Your task to perform on an android device: change the clock style Image 0: 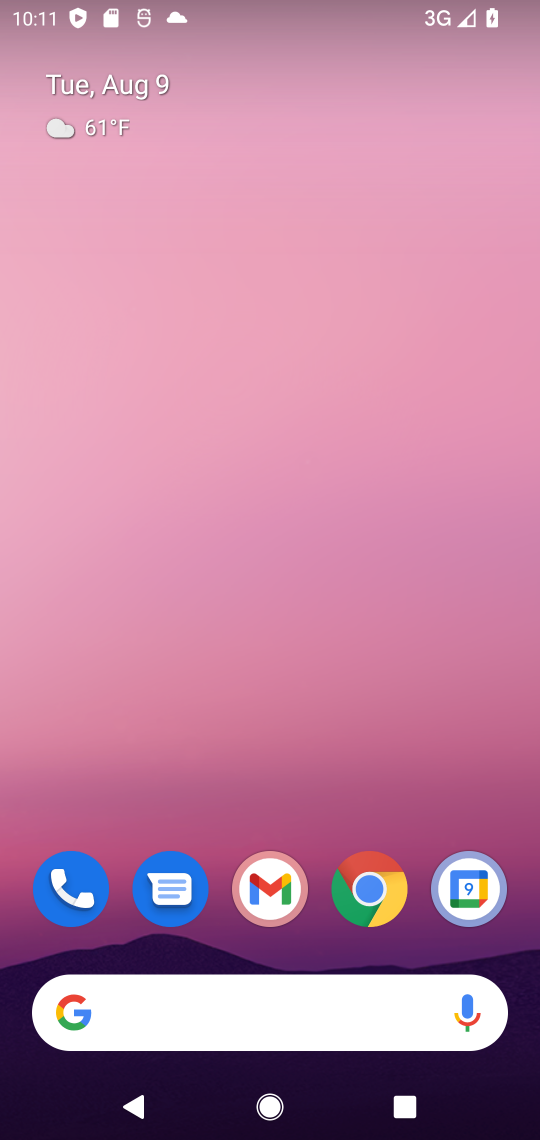
Step 0: drag from (150, 1026) to (312, 149)
Your task to perform on an android device: change the clock style Image 1: 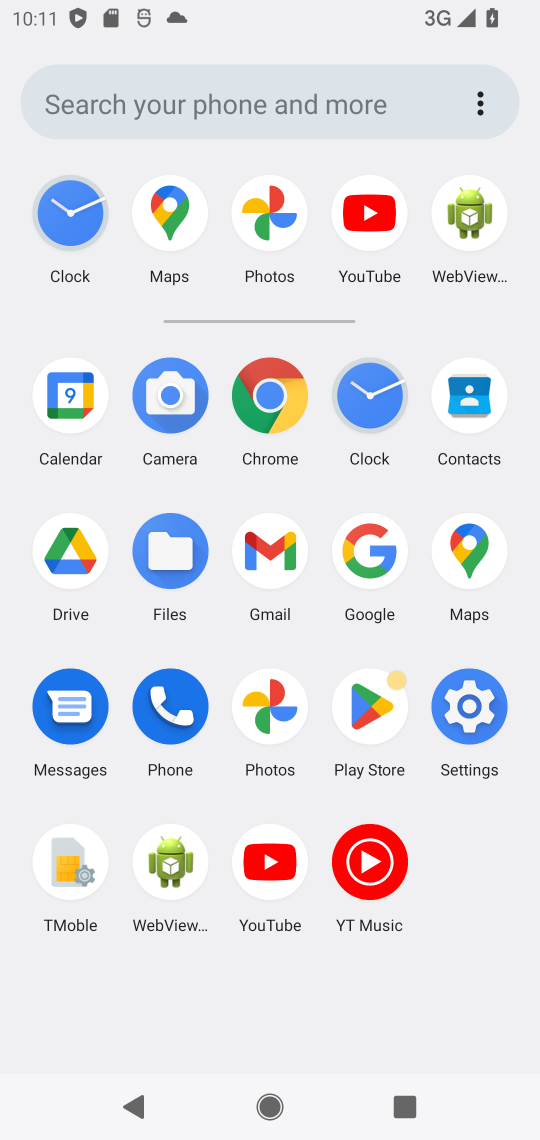
Step 1: click (357, 399)
Your task to perform on an android device: change the clock style Image 2: 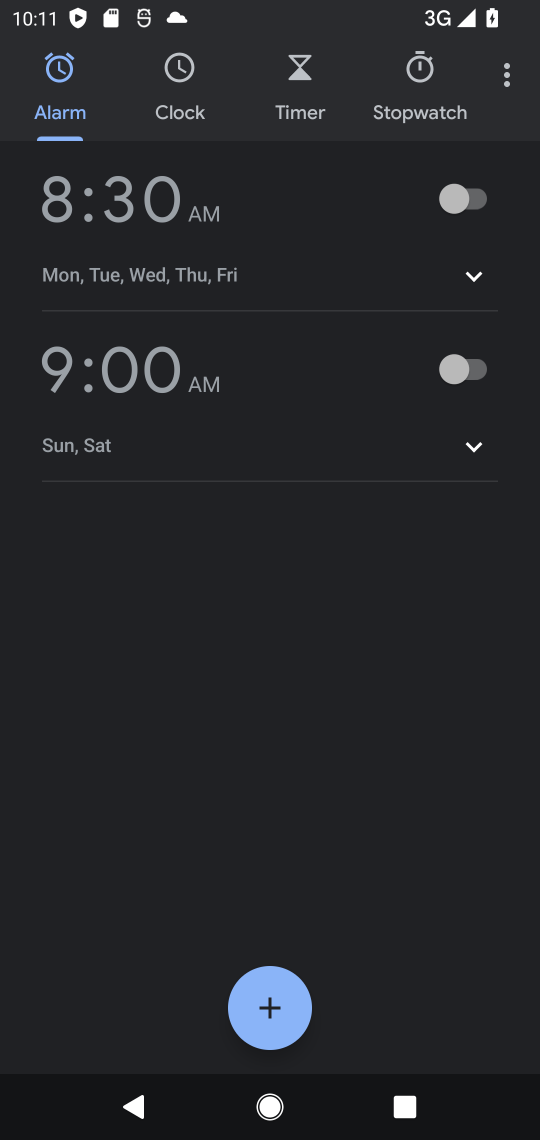
Step 2: click (502, 71)
Your task to perform on an android device: change the clock style Image 3: 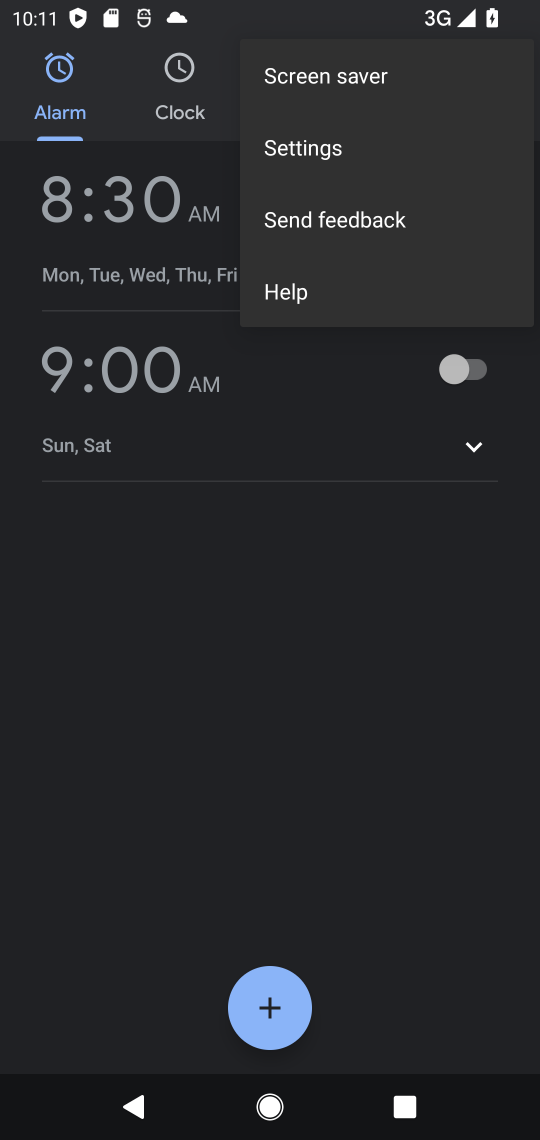
Step 3: click (300, 151)
Your task to perform on an android device: change the clock style Image 4: 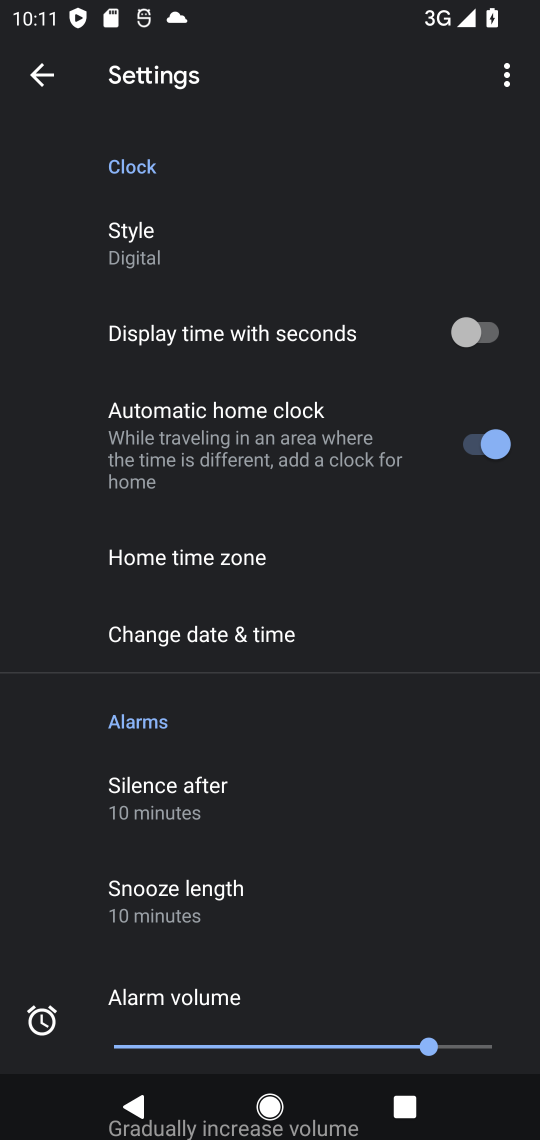
Step 4: click (153, 262)
Your task to perform on an android device: change the clock style Image 5: 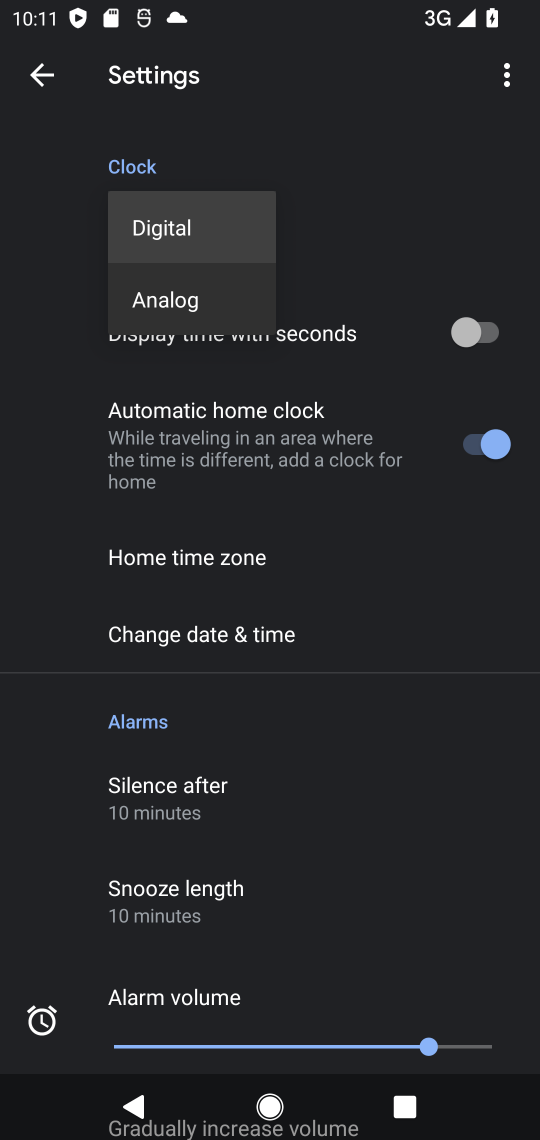
Step 5: click (180, 292)
Your task to perform on an android device: change the clock style Image 6: 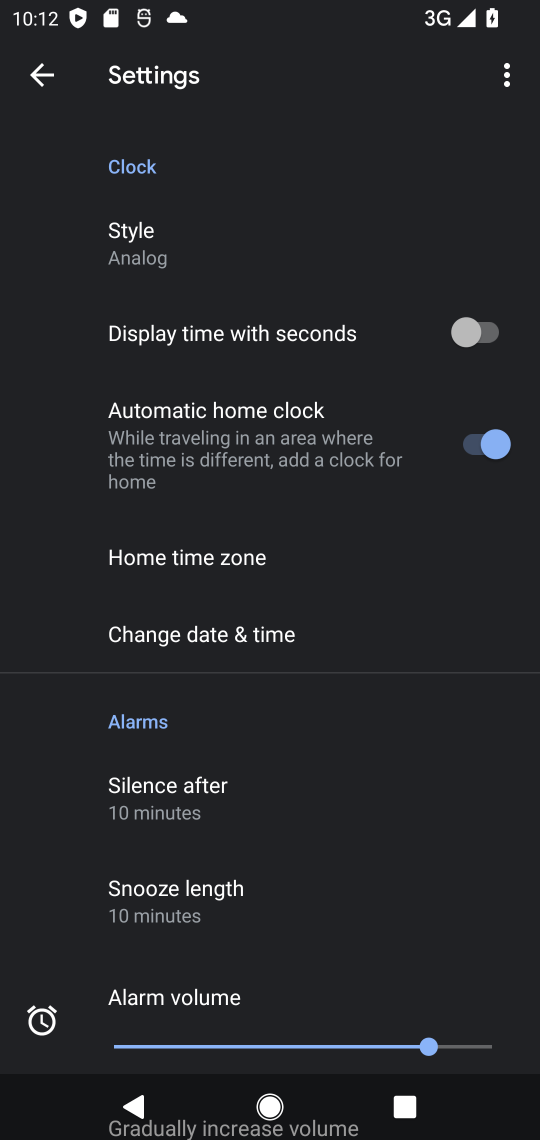
Step 6: task complete